Your task to perform on an android device: Open Yahoo.com Image 0: 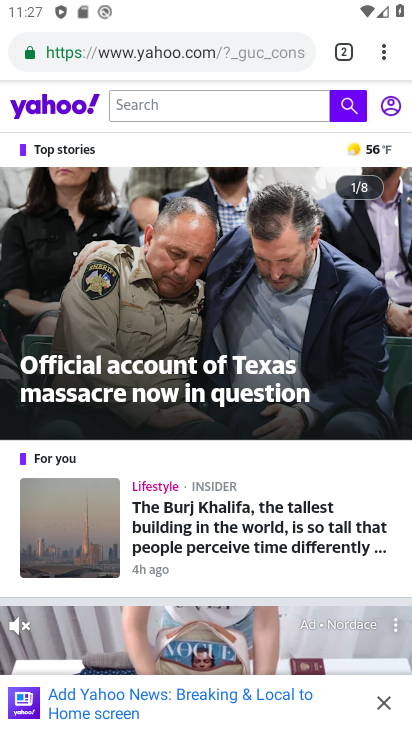
Step 0: task complete